Your task to perform on an android device: Go to Android settings Image 0: 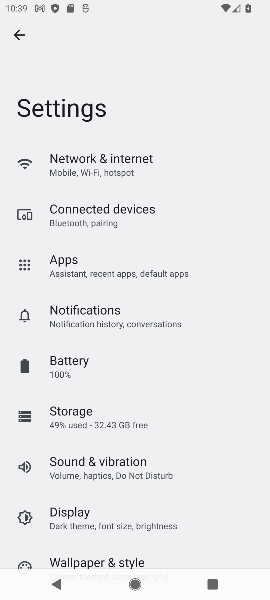
Step 0: click (119, 238)
Your task to perform on an android device: Go to Android settings Image 1: 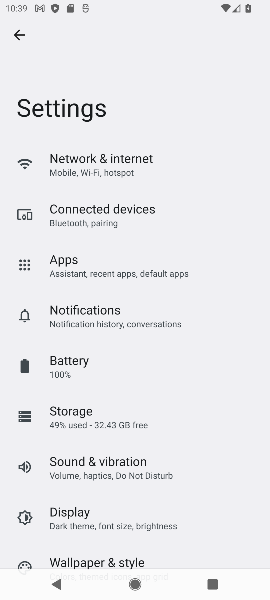
Step 1: task complete